Your task to perform on an android device: create a new album in the google photos Image 0: 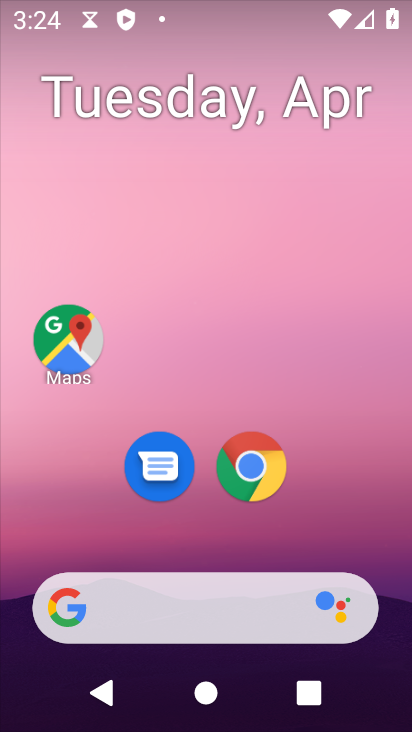
Step 0: drag from (316, 488) to (239, 26)
Your task to perform on an android device: create a new album in the google photos Image 1: 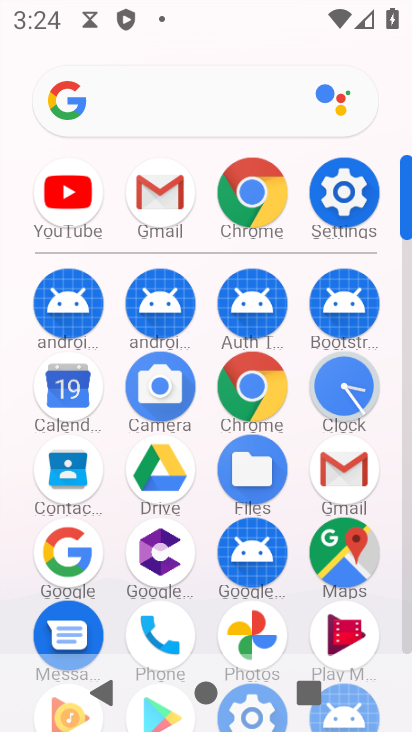
Step 1: drag from (11, 417) to (11, 177)
Your task to perform on an android device: create a new album in the google photos Image 2: 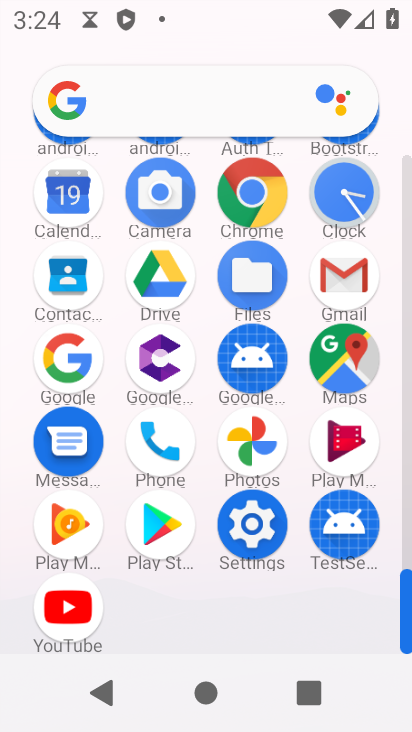
Step 2: click (256, 440)
Your task to perform on an android device: create a new album in the google photos Image 3: 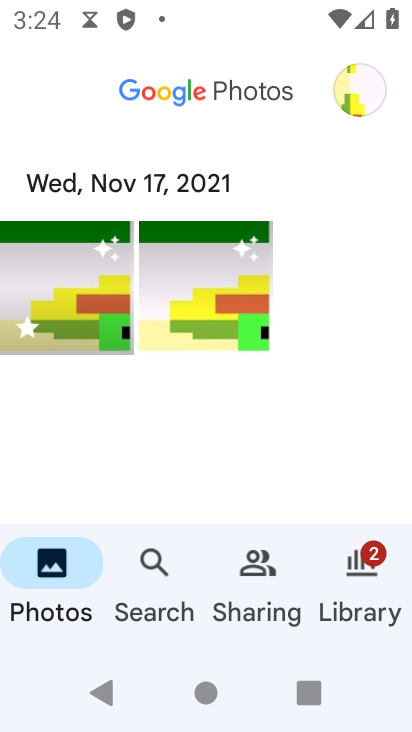
Step 3: click (167, 309)
Your task to perform on an android device: create a new album in the google photos Image 4: 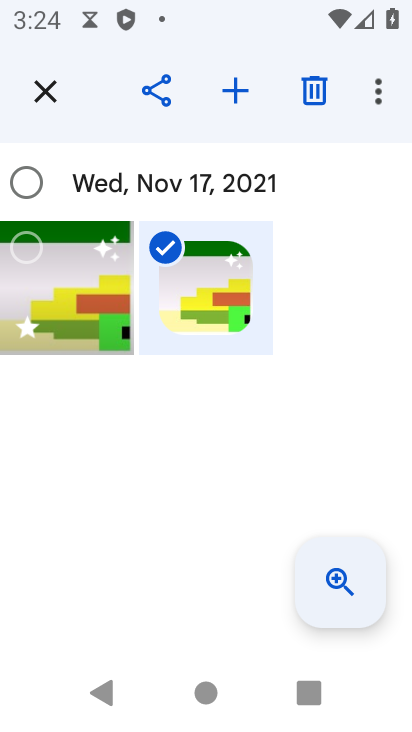
Step 4: click (249, 95)
Your task to perform on an android device: create a new album in the google photos Image 5: 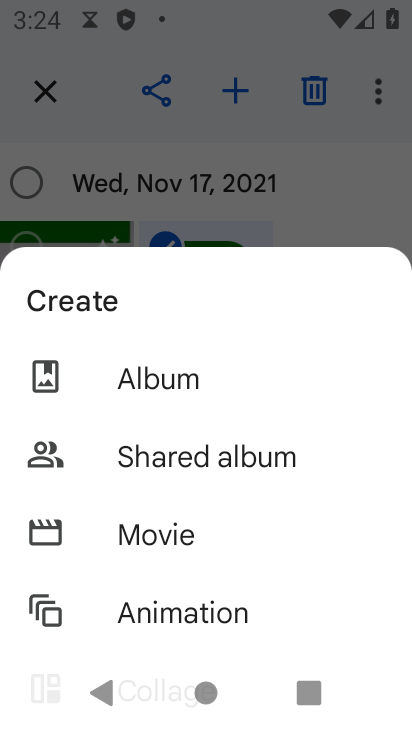
Step 5: click (183, 381)
Your task to perform on an android device: create a new album in the google photos Image 6: 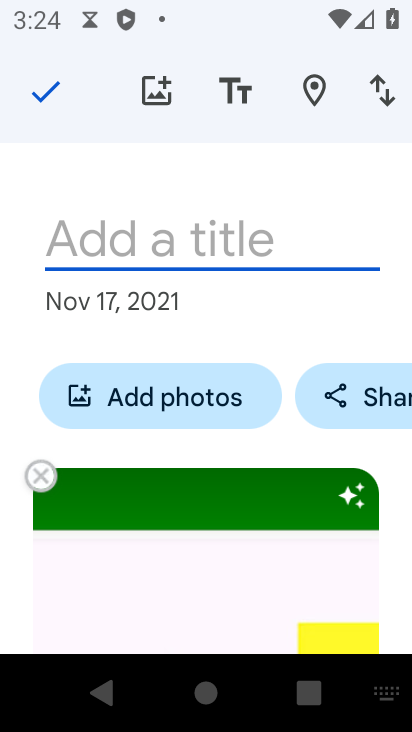
Step 6: type "@wqas"
Your task to perform on an android device: create a new album in the google photos Image 7: 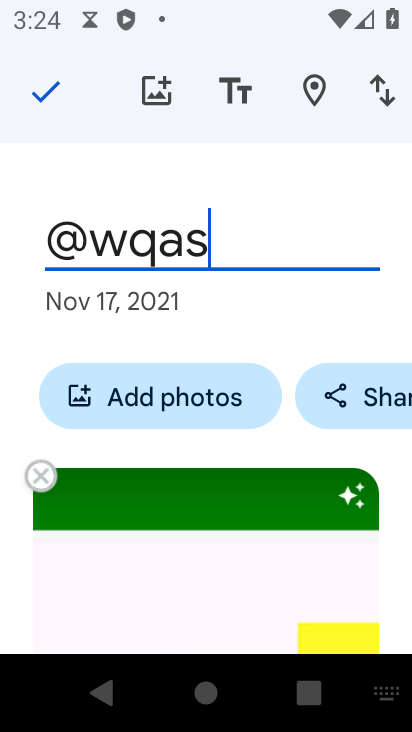
Step 7: type ""
Your task to perform on an android device: create a new album in the google photos Image 8: 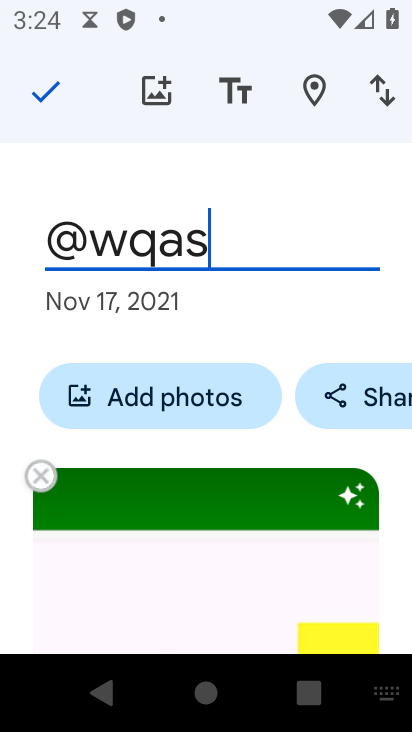
Step 8: click (54, 88)
Your task to perform on an android device: create a new album in the google photos Image 9: 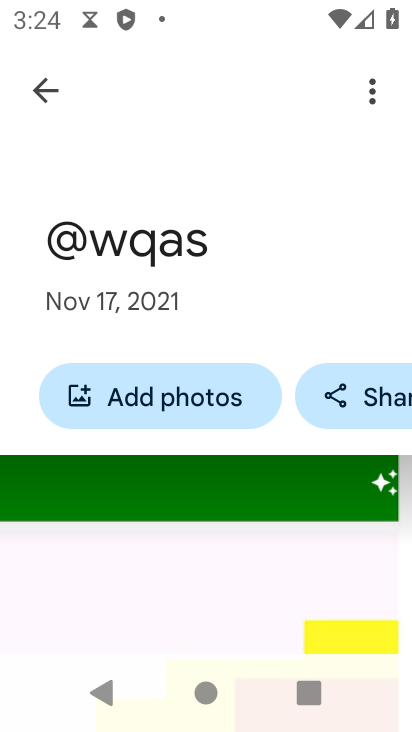
Step 9: task complete